Your task to perform on an android device: Open Chrome and go to settings Image 0: 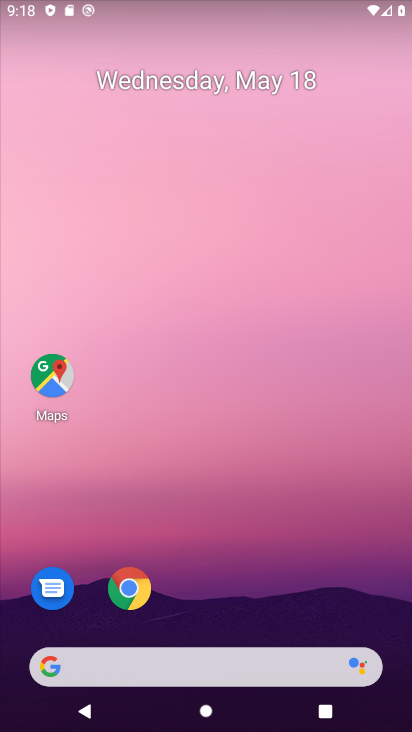
Step 0: press home button
Your task to perform on an android device: Open Chrome and go to settings Image 1: 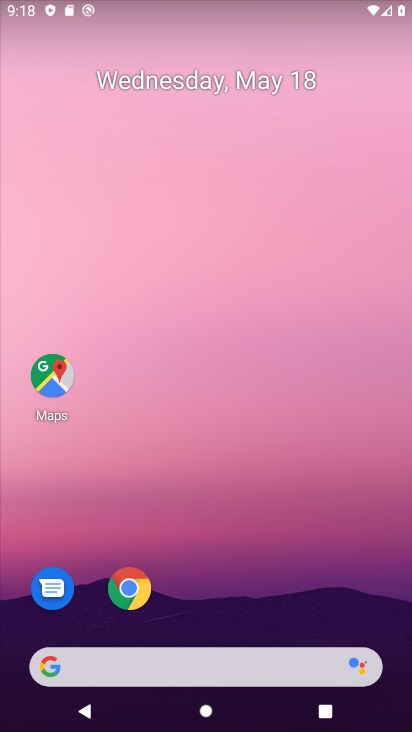
Step 1: drag from (255, 685) to (381, 164)
Your task to perform on an android device: Open Chrome and go to settings Image 2: 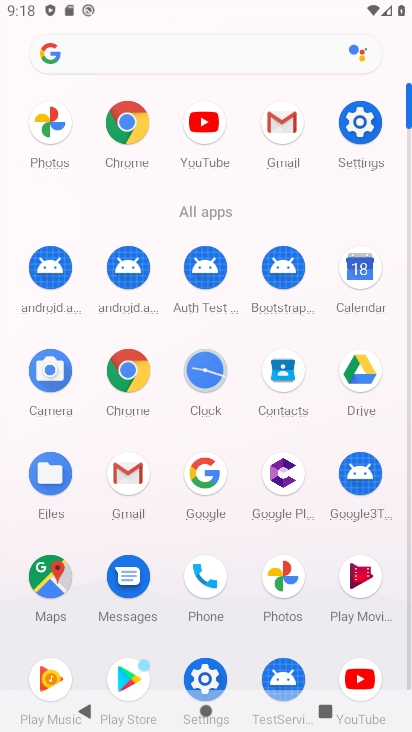
Step 2: click (137, 112)
Your task to perform on an android device: Open Chrome and go to settings Image 3: 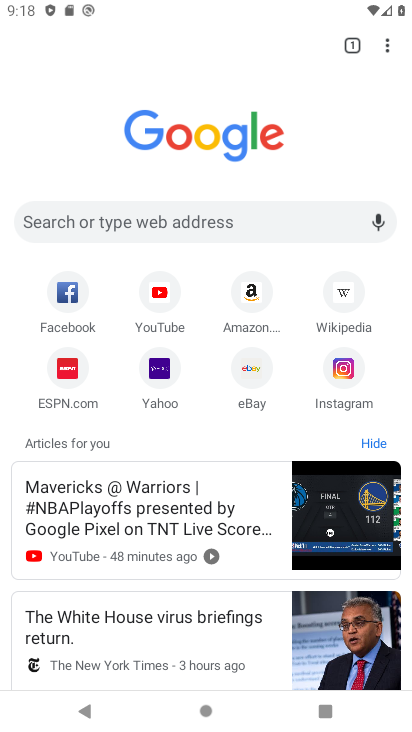
Step 3: click (379, 57)
Your task to perform on an android device: Open Chrome and go to settings Image 4: 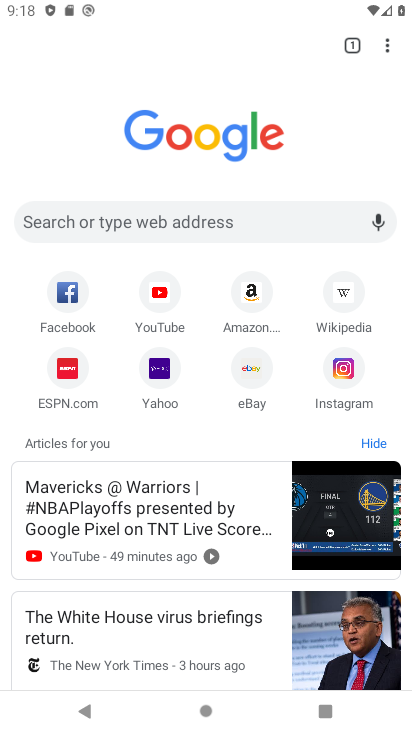
Step 4: click (385, 55)
Your task to perform on an android device: Open Chrome and go to settings Image 5: 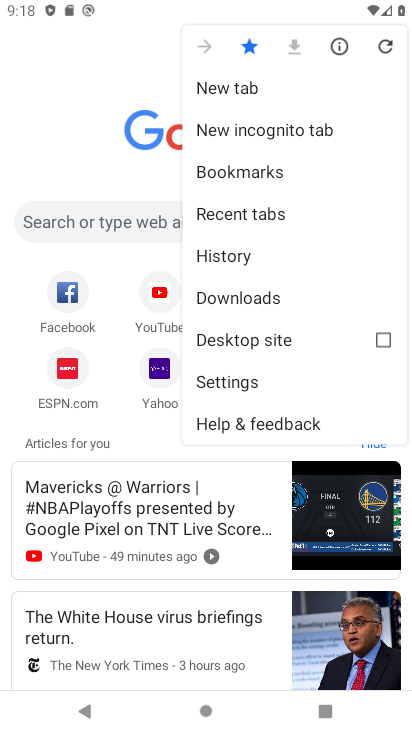
Step 5: click (241, 381)
Your task to perform on an android device: Open Chrome and go to settings Image 6: 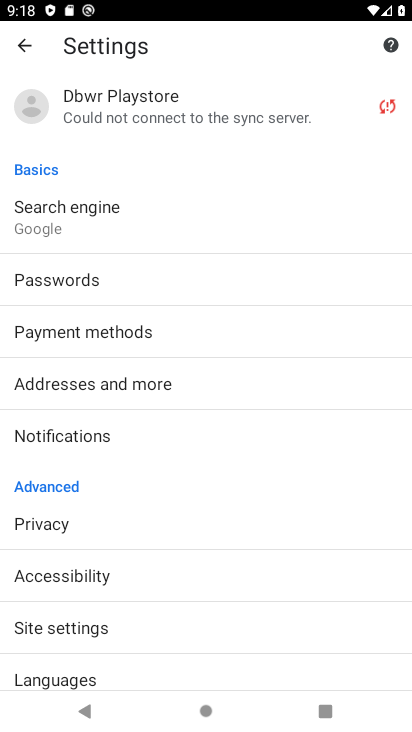
Step 6: task complete